Your task to perform on an android device: Open Google Chrome and click the shortcut for Amazon.com Image 0: 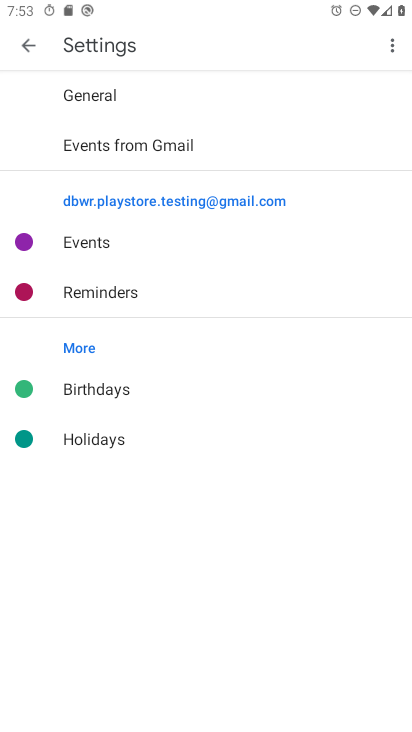
Step 0: press home button
Your task to perform on an android device: Open Google Chrome and click the shortcut for Amazon.com Image 1: 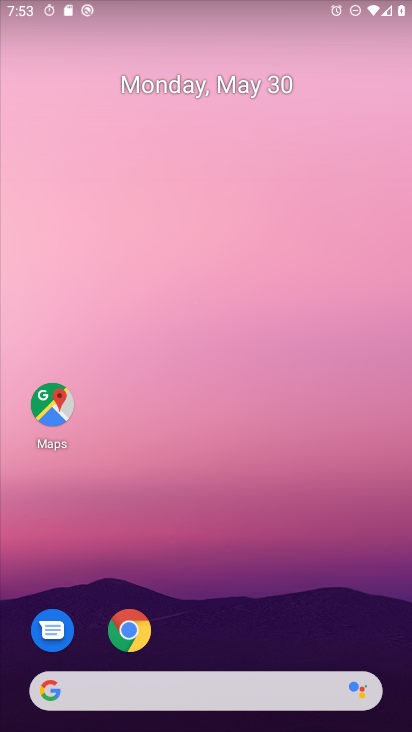
Step 1: drag from (371, 620) to (334, 0)
Your task to perform on an android device: Open Google Chrome and click the shortcut for Amazon.com Image 2: 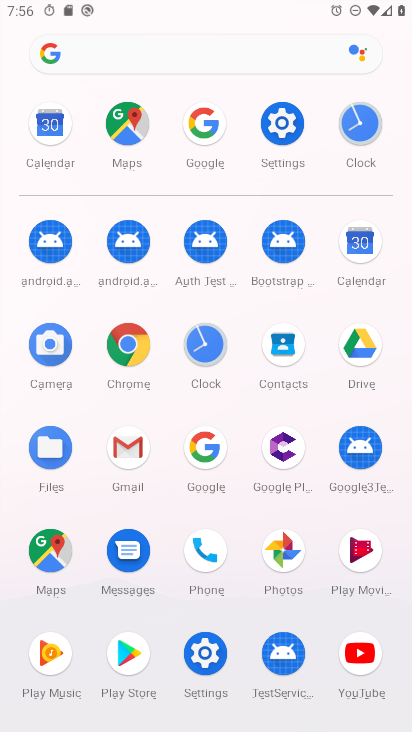
Step 2: click (120, 338)
Your task to perform on an android device: Open Google Chrome and click the shortcut for Amazon.com Image 3: 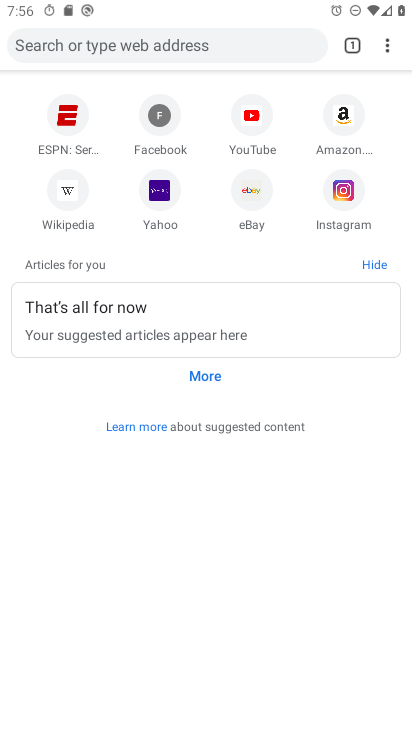
Step 3: click (337, 115)
Your task to perform on an android device: Open Google Chrome and click the shortcut for Amazon.com Image 4: 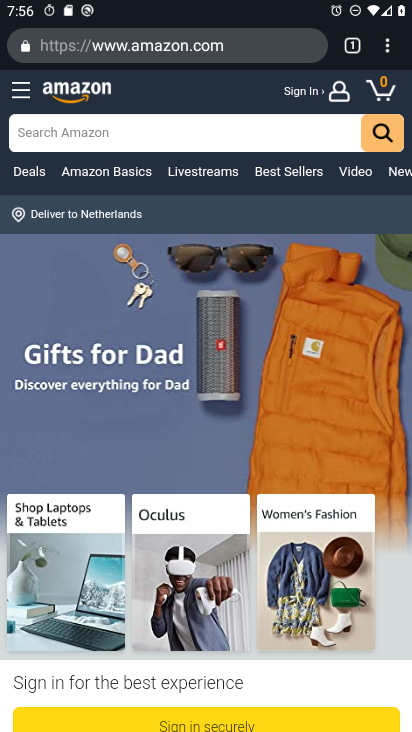
Step 4: task complete